Your task to perform on an android device: toggle show notifications on the lock screen Image 0: 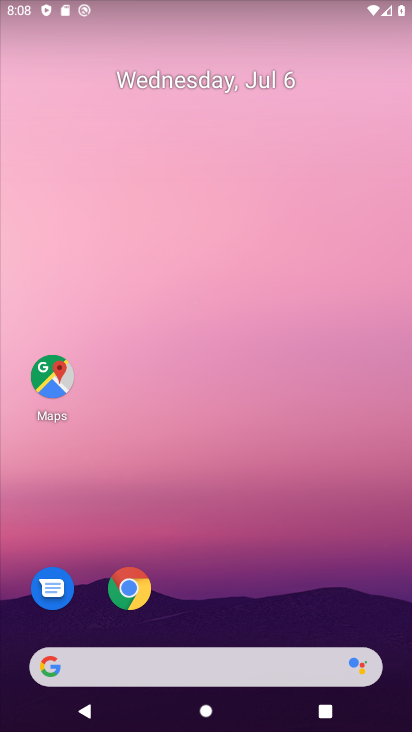
Step 0: drag from (188, 531) to (182, 128)
Your task to perform on an android device: toggle show notifications on the lock screen Image 1: 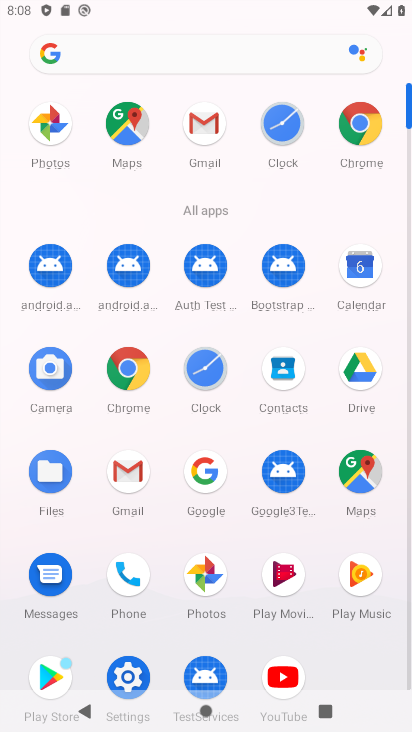
Step 1: click (130, 675)
Your task to perform on an android device: toggle show notifications on the lock screen Image 2: 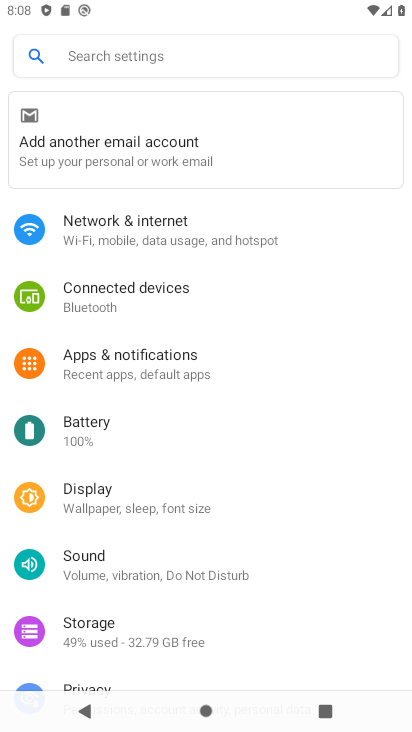
Step 2: drag from (114, 584) to (138, 427)
Your task to perform on an android device: toggle show notifications on the lock screen Image 3: 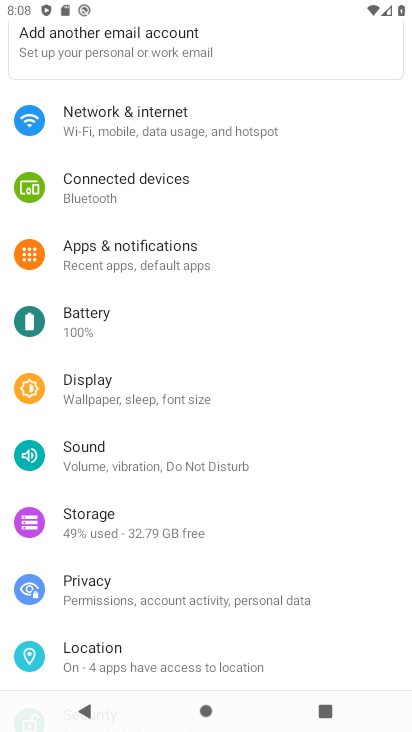
Step 3: click (125, 263)
Your task to perform on an android device: toggle show notifications on the lock screen Image 4: 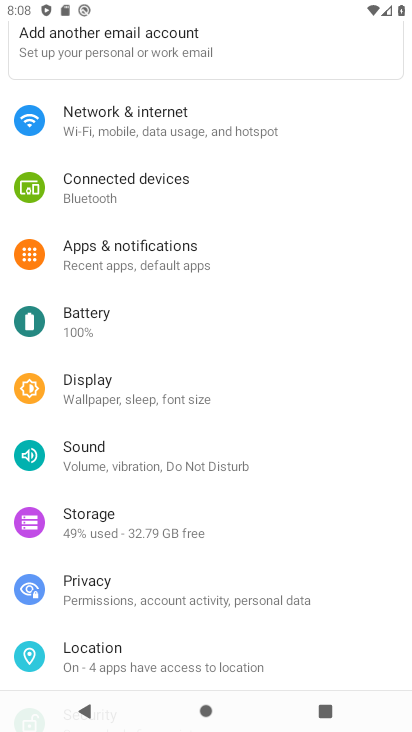
Step 4: click (130, 254)
Your task to perform on an android device: toggle show notifications on the lock screen Image 5: 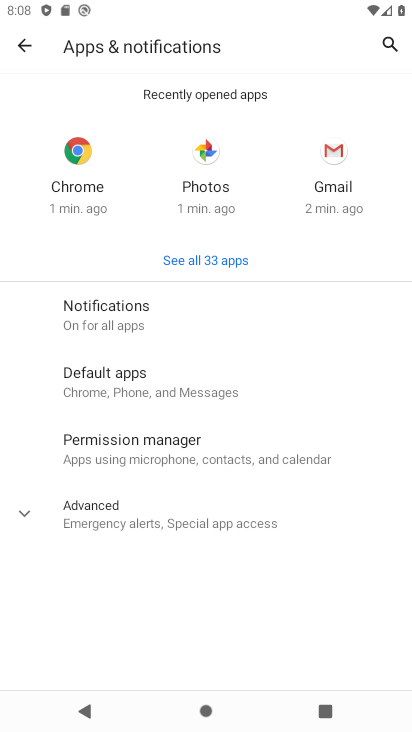
Step 5: click (132, 322)
Your task to perform on an android device: toggle show notifications on the lock screen Image 6: 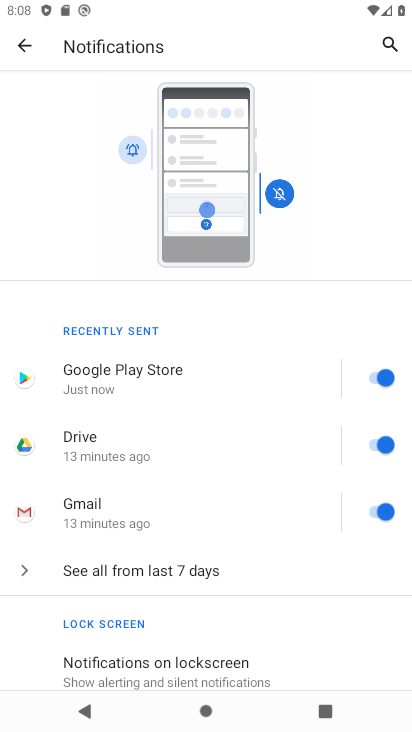
Step 6: drag from (159, 643) to (161, 410)
Your task to perform on an android device: toggle show notifications on the lock screen Image 7: 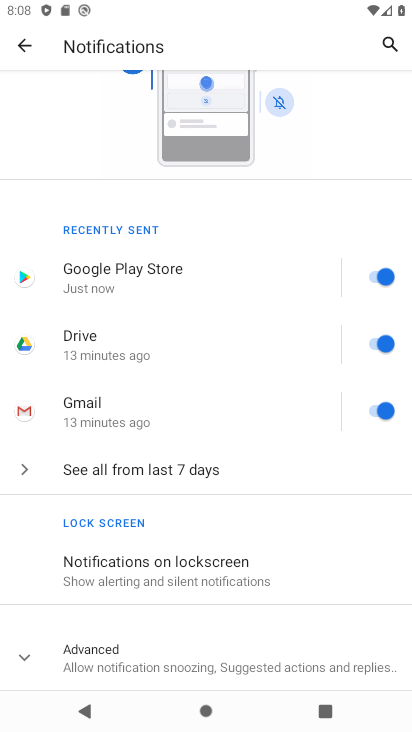
Step 7: click (145, 579)
Your task to perform on an android device: toggle show notifications on the lock screen Image 8: 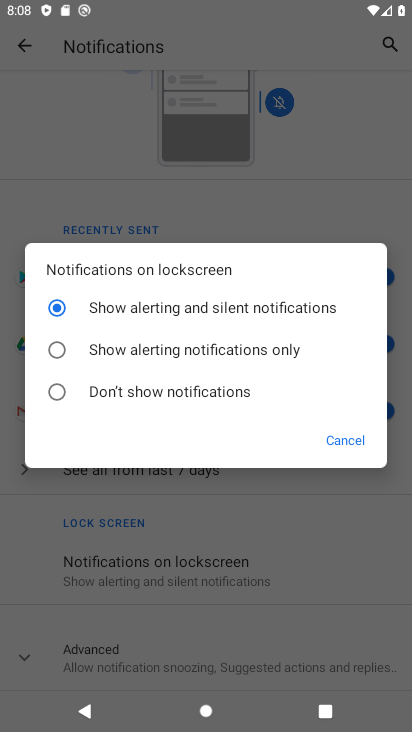
Step 8: click (120, 391)
Your task to perform on an android device: toggle show notifications on the lock screen Image 9: 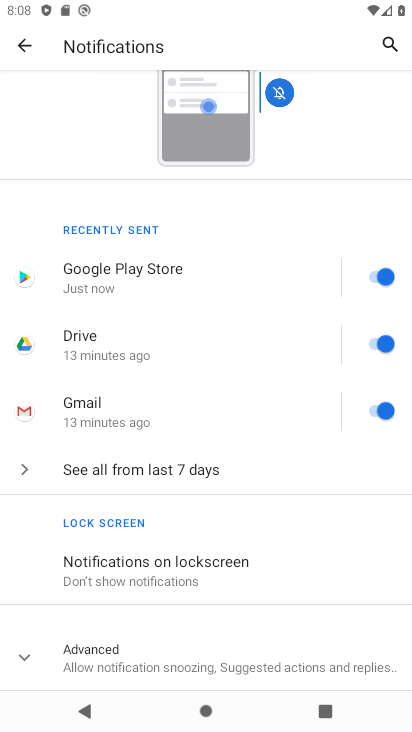
Step 9: task complete